Your task to perform on an android device: turn off javascript in the chrome app Image 0: 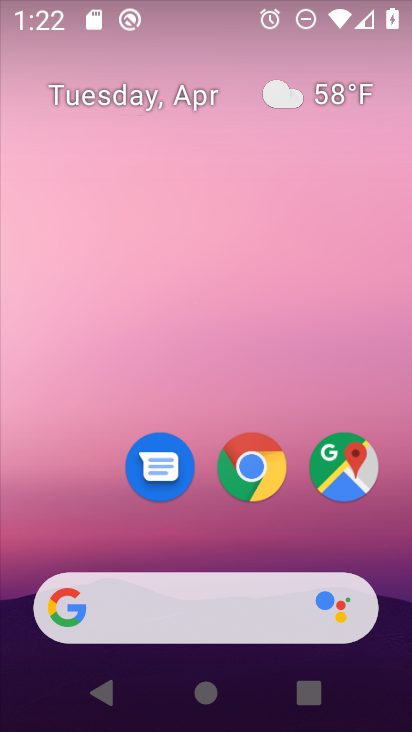
Step 0: click (269, 452)
Your task to perform on an android device: turn off javascript in the chrome app Image 1: 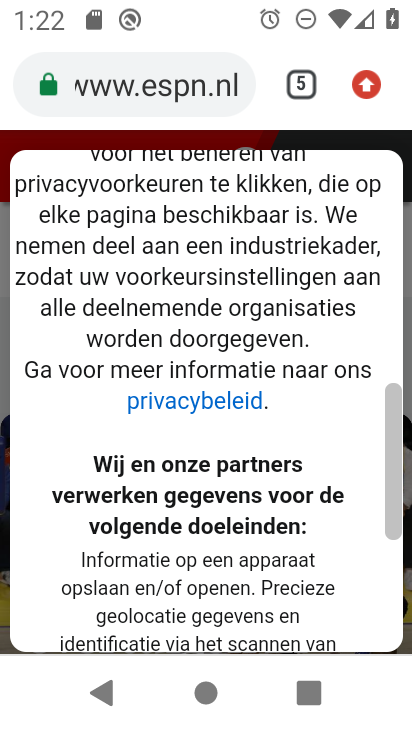
Step 1: click (370, 72)
Your task to perform on an android device: turn off javascript in the chrome app Image 2: 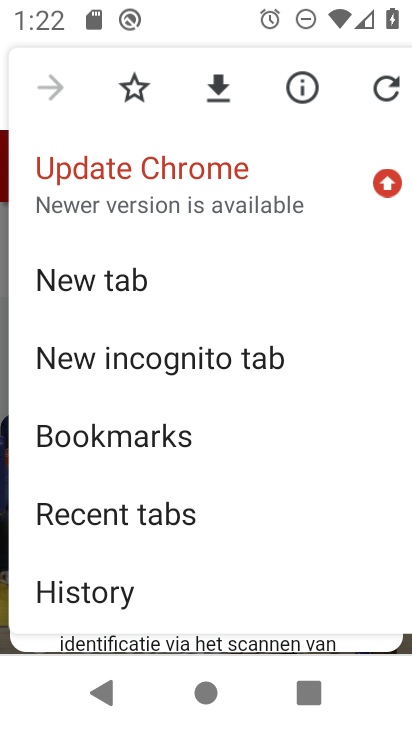
Step 2: drag from (135, 511) to (156, 105)
Your task to perform on an android device: turn off javascript in the chrome app Image 3: 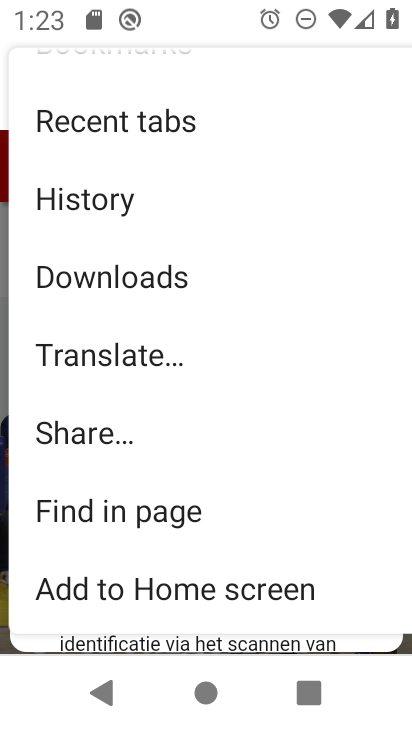
Step 3: drag from (99, 484) to (119, 189)
Your task to perform on an android device: turn off javascript in the chrome app Image 4: 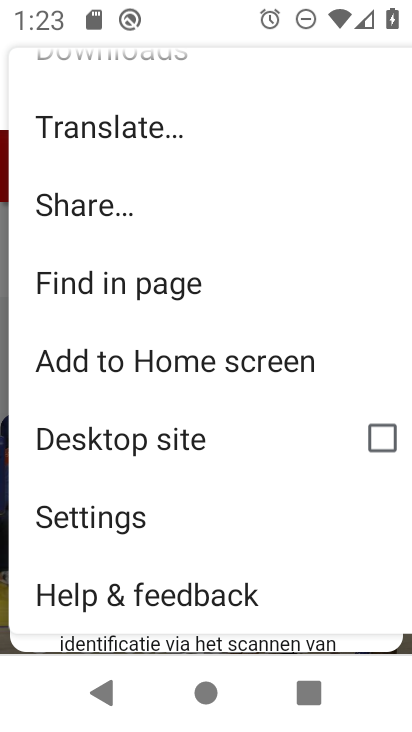
Step 4: click (86, 497)
Your task to perform on an android device: turn off javascript in the chrome app Image 5: 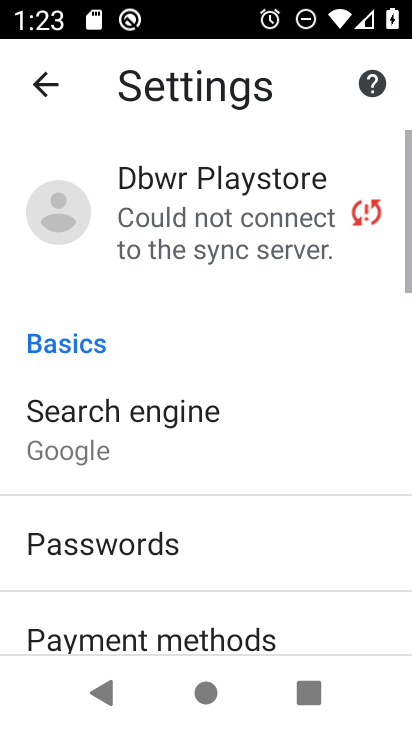
Step 5: drag from (195, 567) to (169, 116)
Your task to perform on an android device: turn off javascript in the chrome app Image 6: 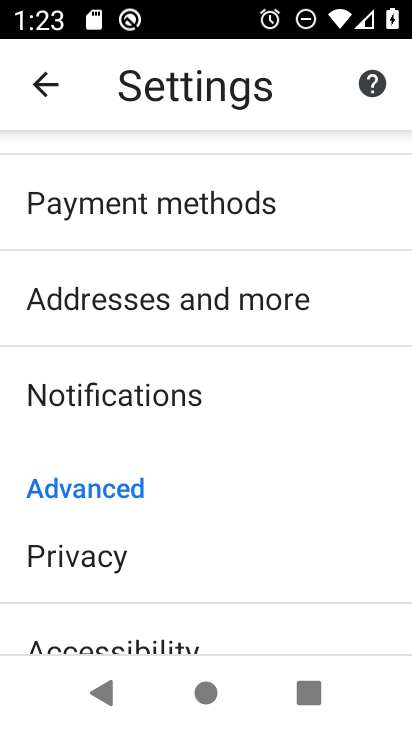
Step 6: drag from (172, 585) to (210, 71)
Your task to perform on an android device: turn off javascript in the chrome app Image 7: 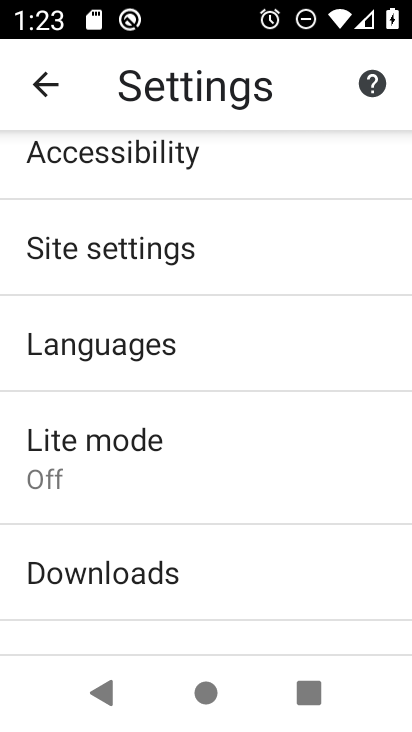
Step 7: click (216, 223)
Your task to perform on an android device: turn off javascript in the chrome app Image 8: 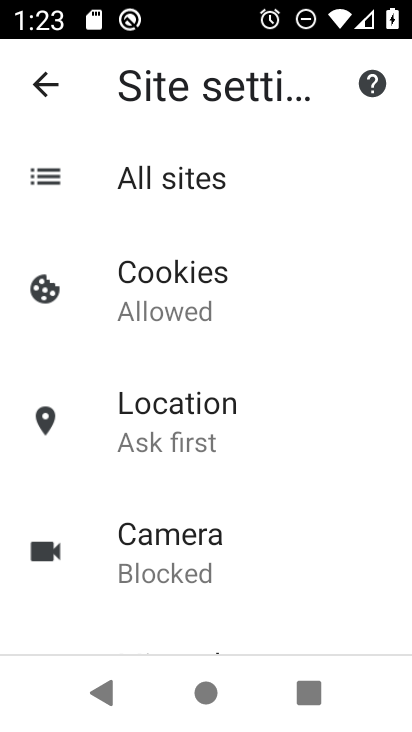
Step 8: drag from (155, 587) to (144, 159)
Your task to perform on an android device: turn off javascript in the chrome app Image 9: 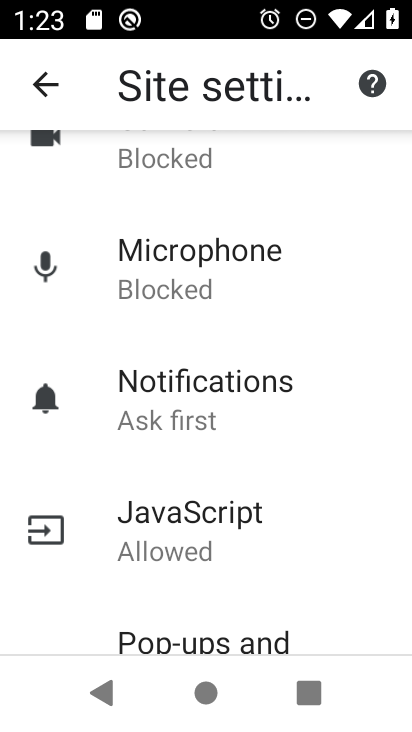
Step 9: click (160, 505)
Your task to perform on an android device: turn off javascript in the chrome app Image 10: 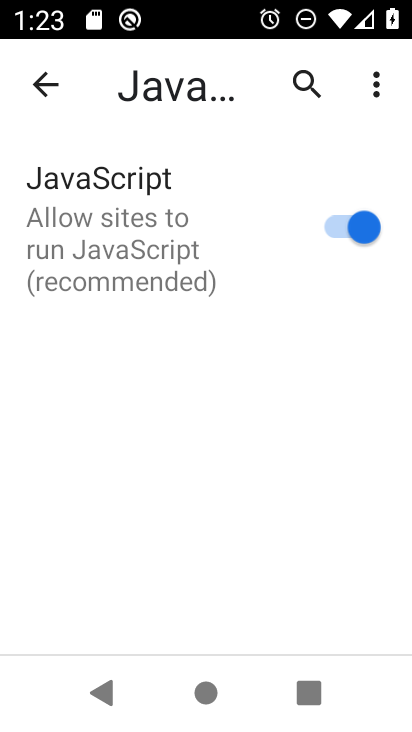
Step 10: click (347, 231)
Your task to perform on an android device: turn off javascript in the chrome app Image 11: 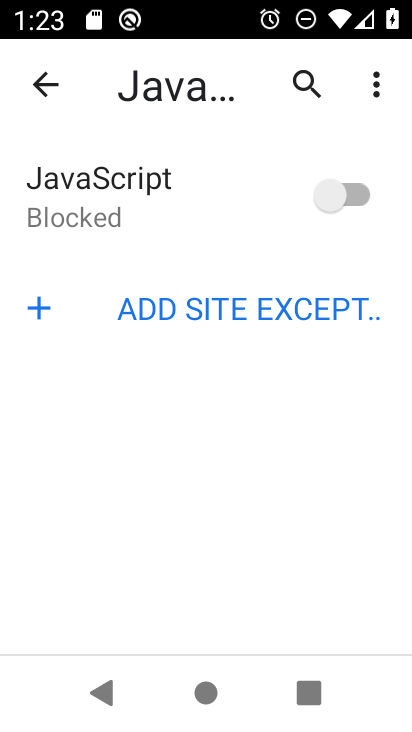
Step 11: task complete